Your task to perform on an android device: see creations saved in the google photos Image 0: 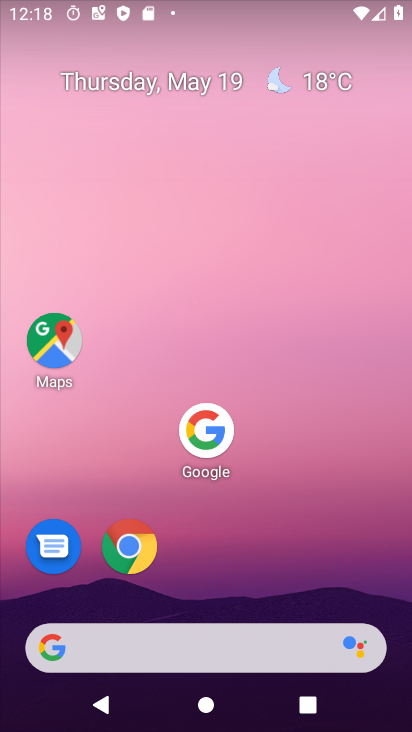
Step 0: drag from (207, 557) to (214, 119)
Your task to perform on an android device: see creations saved in the google photos Image 1: 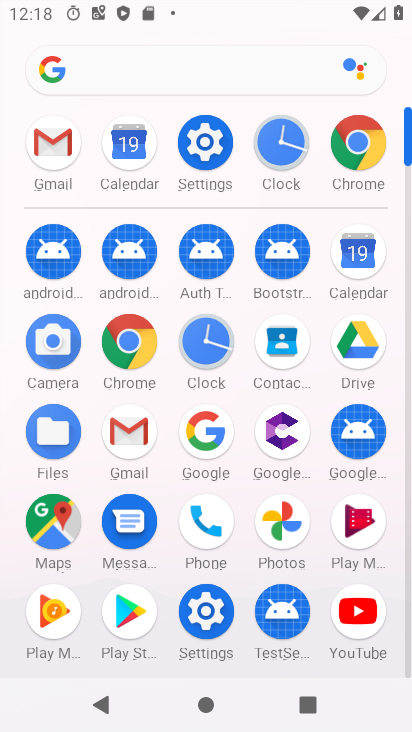
Step 1: click (279, 521)
Your task to perform on an android device: see creations saved in the google photos Image 2: 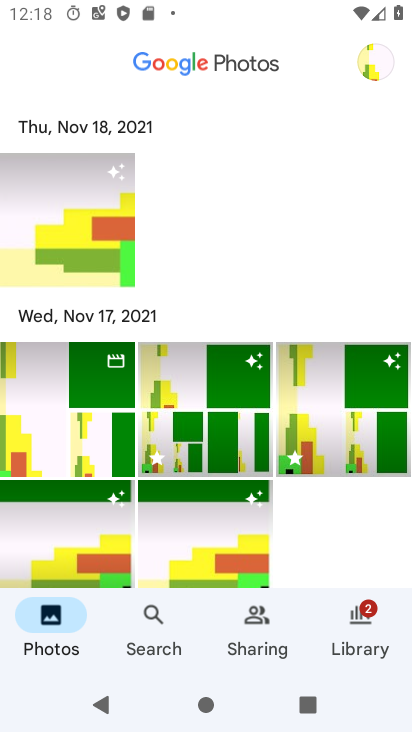
Step 2: click (157, 632)
Your task to perform on an android device: see creations saved in the google photos Image 3: 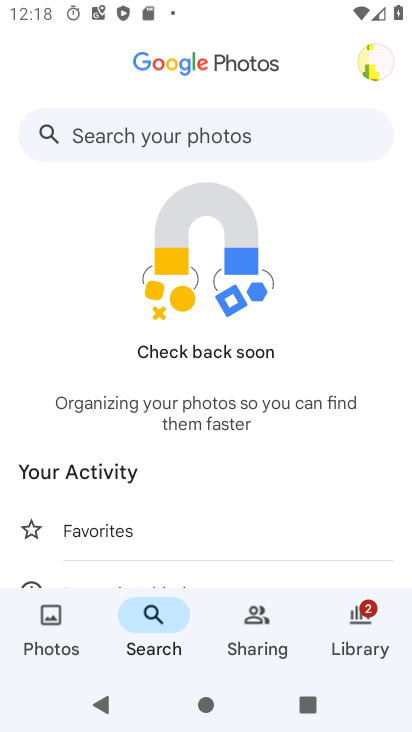
Step 3: drag from (210, 511) to (180, 5)
Your task to perform on an android device: see creations saved in the google photos Image 4: 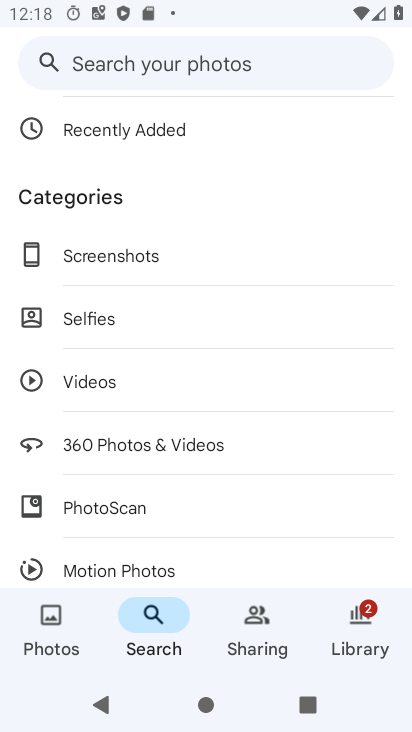
Step 4: drag from (147, 499) to (123, 0)
Your task to perform on an android device: see creations saved in the google photos Image 5: 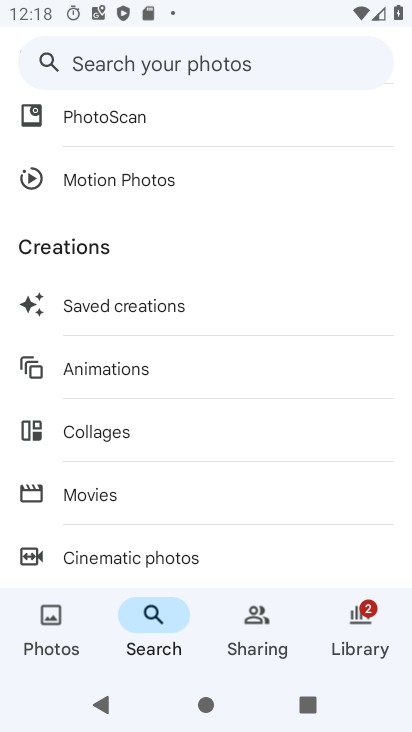
Step 5: drag from (192, 527) to (172, 126)
Your task to perform on an android device: see creations saved in the google photos Image 6: 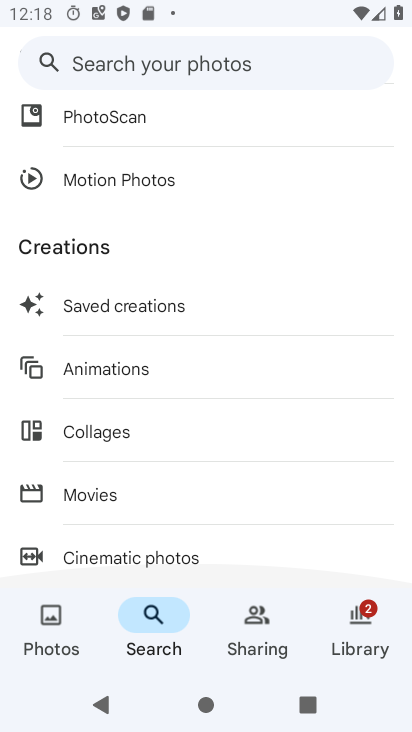
Step 6: click (123, 301)
Your task to perform on an android device: see creations saved in the google photos Image 7: 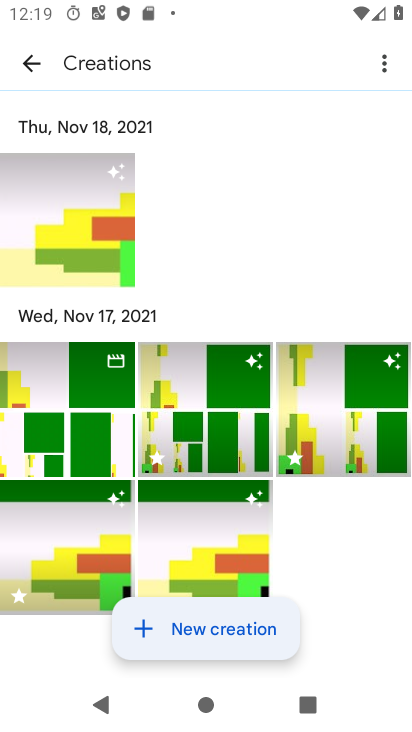
Step 7: task complete